Your task to perform on an android device: turn off translation in the chrome app Image 0: 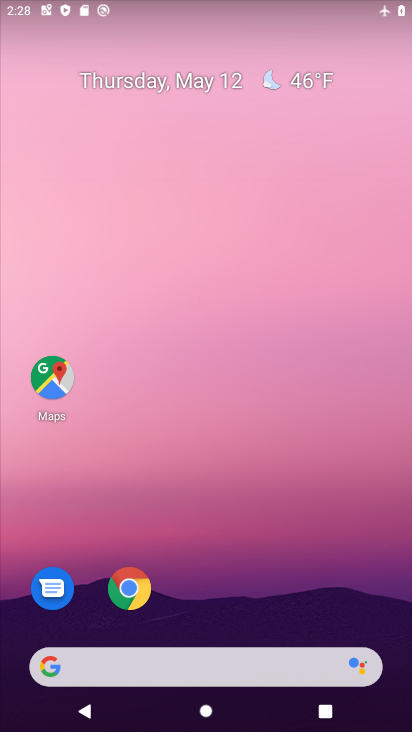
Step 0: drag from (373, 609) to (369, 60)
Your task to perform on an android device: turn off translation in the chrome app Image 1: 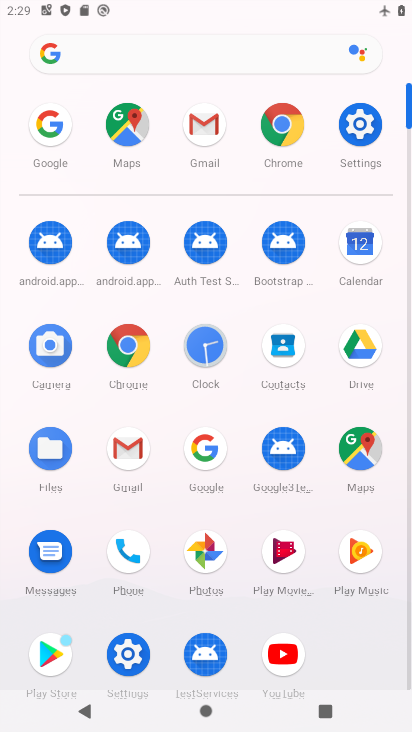
Step 1: click (128, 328)
Your task to perform on an android device: turn off translation in the chrome app Image 2: 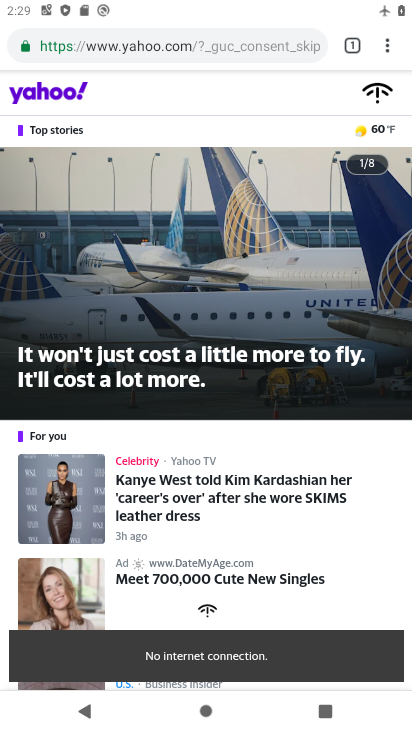
Step 2: press back button
Your task to perform on an android device: turn off translation in the chrome app Image 3: 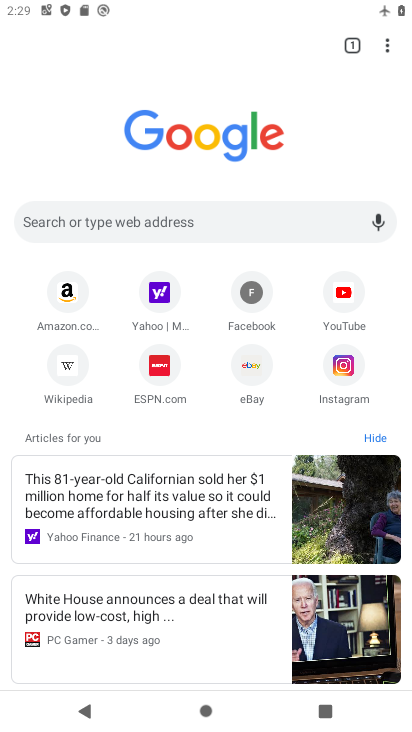
Step 3: click (383, 32)
Your task to perform on an android device: turn off translation in the chrome app Image 4: 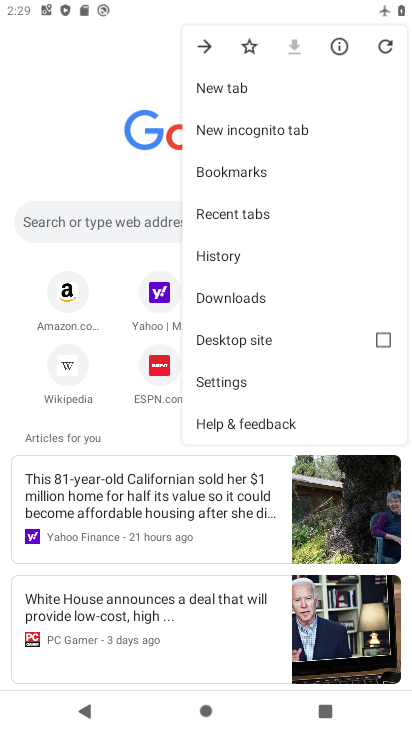
Step 4: click (244, 378)
Your task to perform on an android device: turn off translation in the chrome app Image 5: 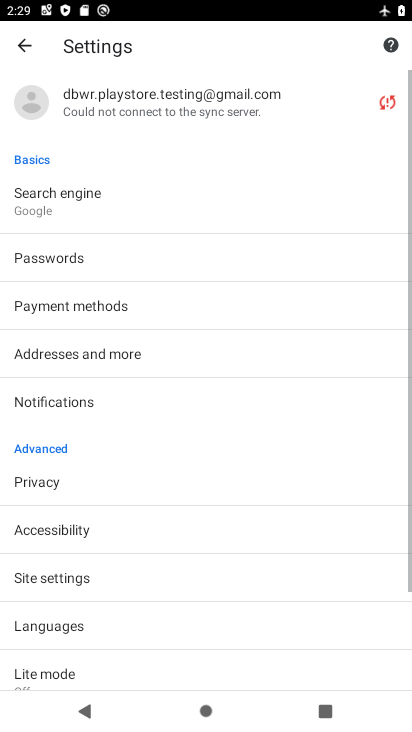
Step 5: click (101, 621)
Your task to perform on an android device: turn off translation in the chrome app Image 6: 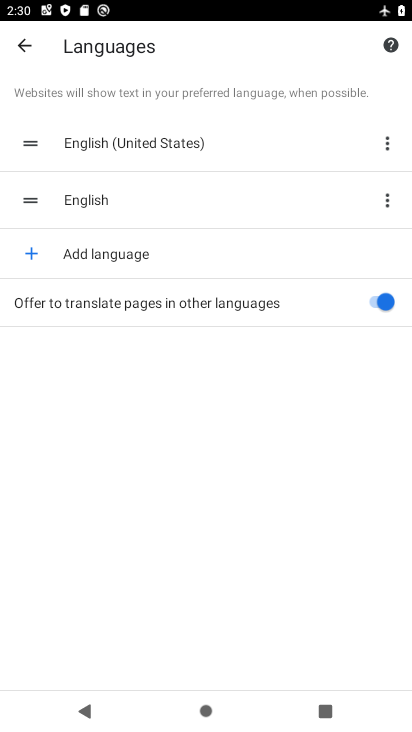
Step 6: click (365, 306)
Your task to perform on an android device: turn off translation in the chrome app Image 7: 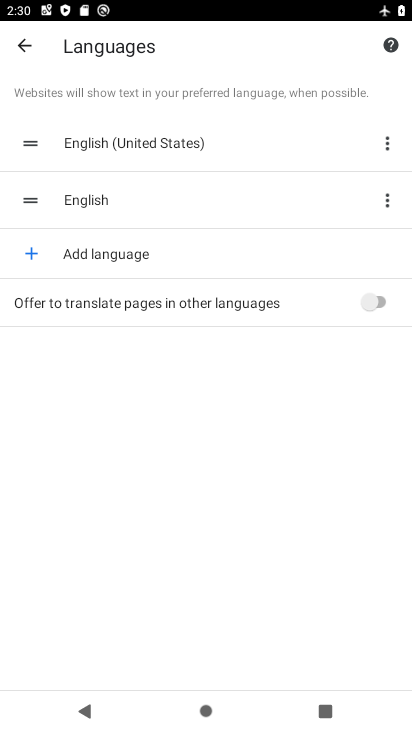
Step 7: task complete